Your task to perform on an android device: turn off airplane mode Image 0: 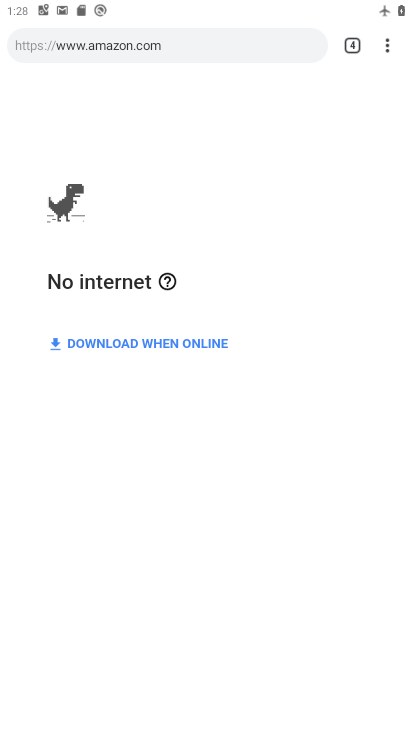
Step 0: press home button
Your task to perform on an android device: turn off airplane mode Image 1: 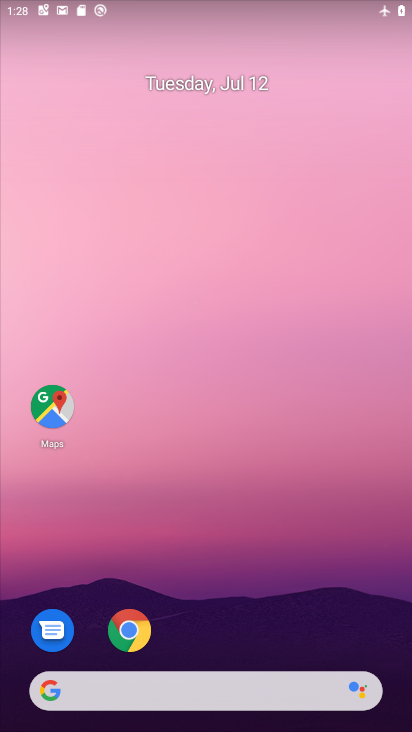
Step 1: drag from (392, 561) to (388, 335)
Your task to perform on an android device: turn off airplane mode Image 2: 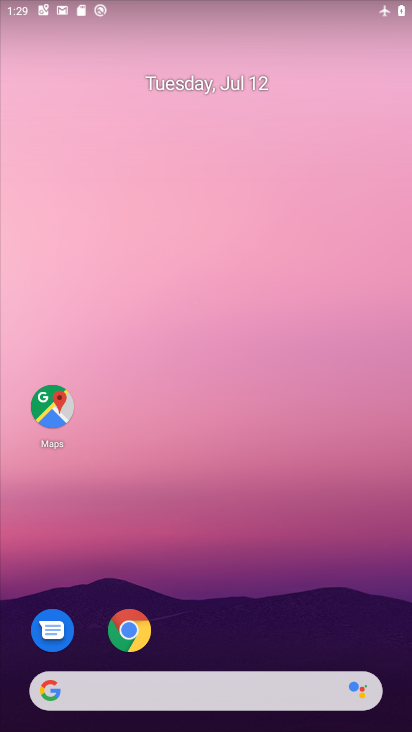
Step 2: drag from (331, 450) to (354, 242)
Your task to perform on an android device: turn off airplane mode Image 3: 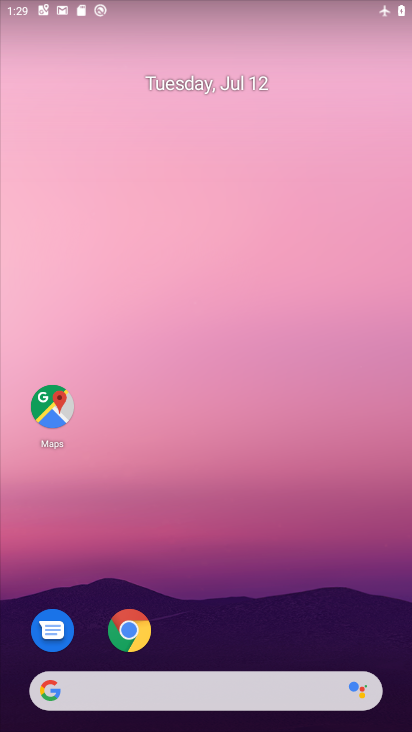
Step 3: drag from (310, 553) to (279, 153)
Your task to perform on an android device: turn off airplane mode Image 4: 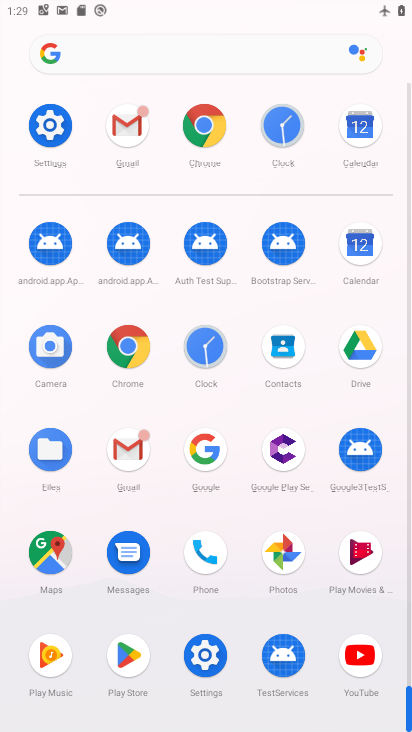
Step 4: click (54, 110)
Your task to perform on an android device: turn off airplane mode Image 5: 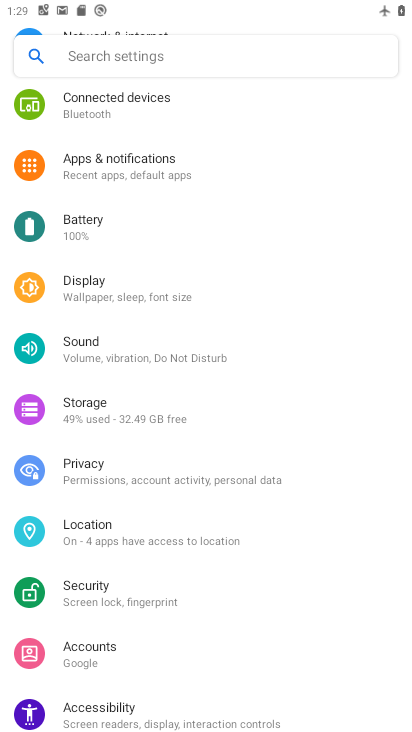
Step 5: drag from (212, 139) to (163, 498)
Your task to perform on an android device: turn off airplane mode Image 6: 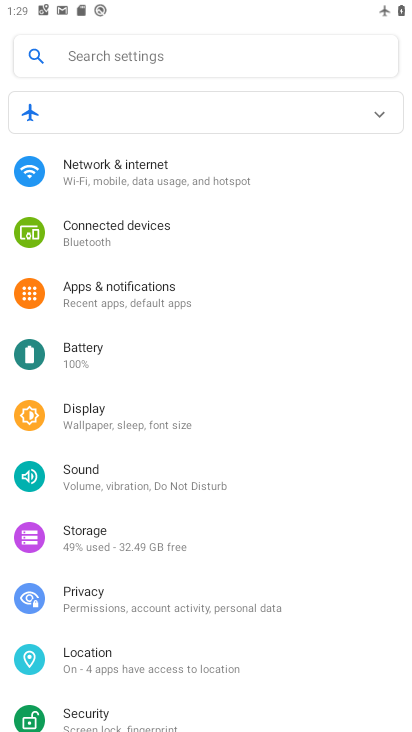
Step 6: click (234, 185)
Your task to perform on an android device: turn off airplane mode Image 7: 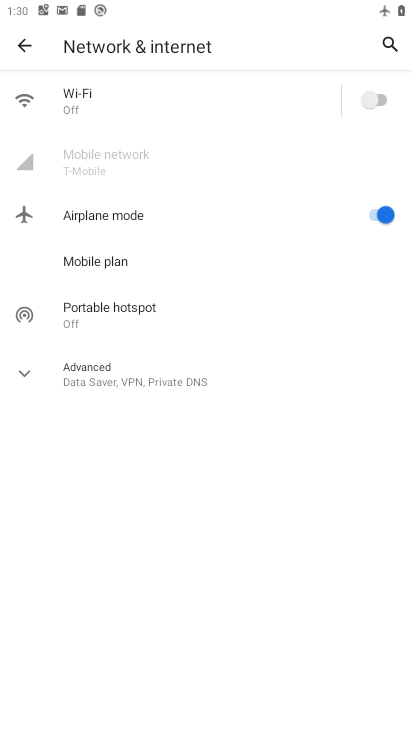
Step 7: click (327, 233)
Your task to perform on an android device: turn off airplane mode Image 8: 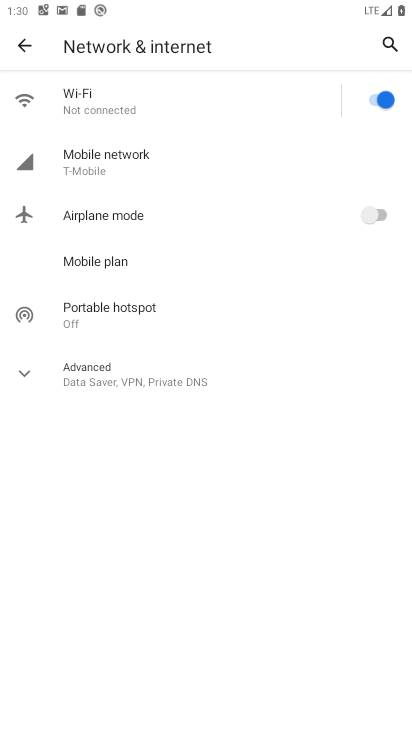
Step 8: task complete